Your task to perform on an android device: check storage Image 0: 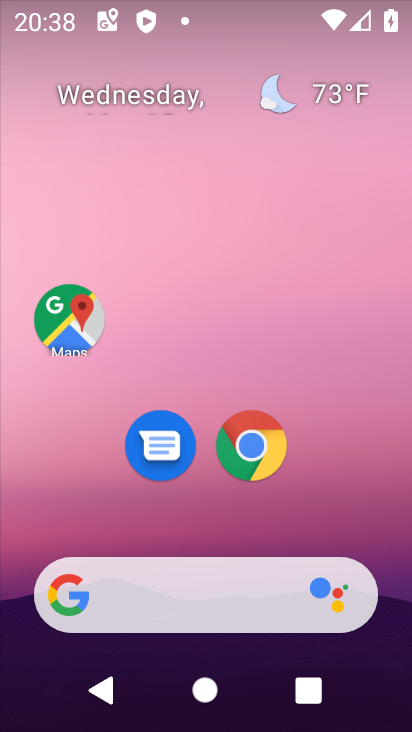
Step 0: drag from (357, 527) to (281, 159)
Your task to perform on an android device: check storage Image 1: 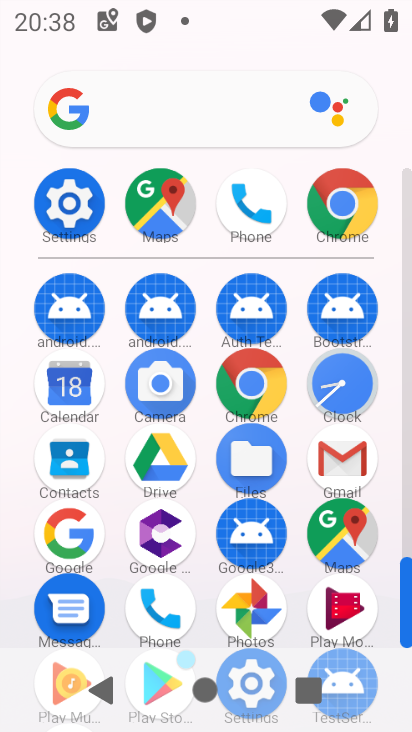
Step 1: drag from (298, 607) to (304, 301)
Your task to perform on an android device: check storage Image 2: 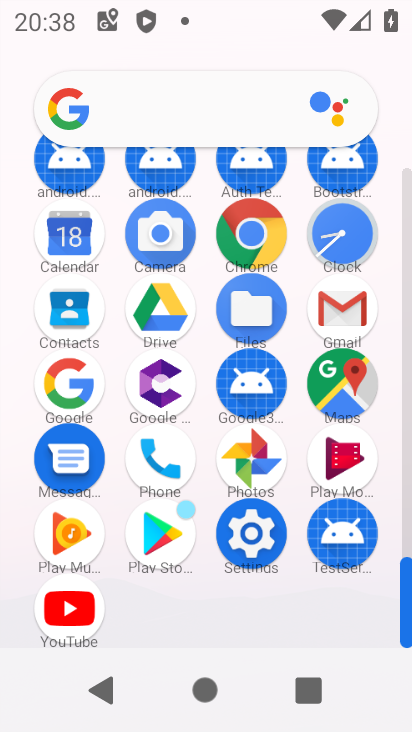
Step 2: click (254, 538)
Your task to perform on an android device: check storage Image 3: 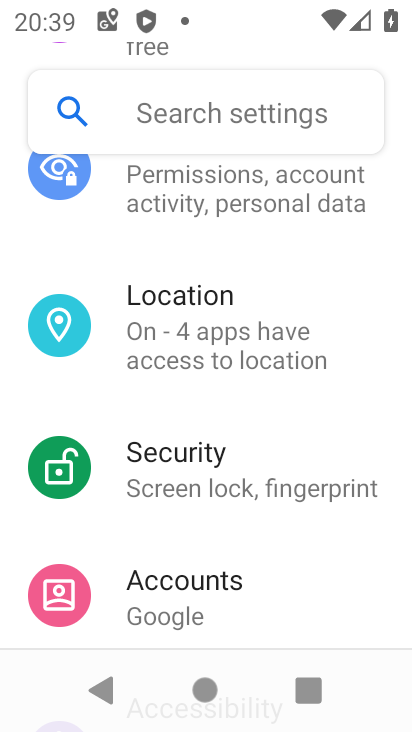
Step 3: drag from (173, 189) to (196, 507)
Your task to perform on an android device: check storage Image 4: 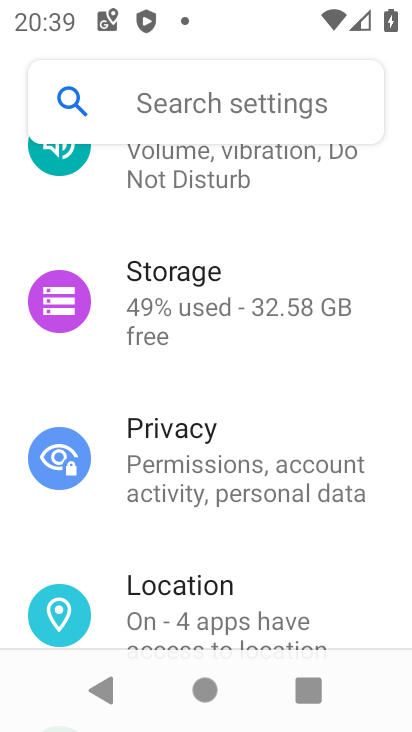
Step 4: click (186, 305)
Your task to perform on an android device: check storage Image 5: 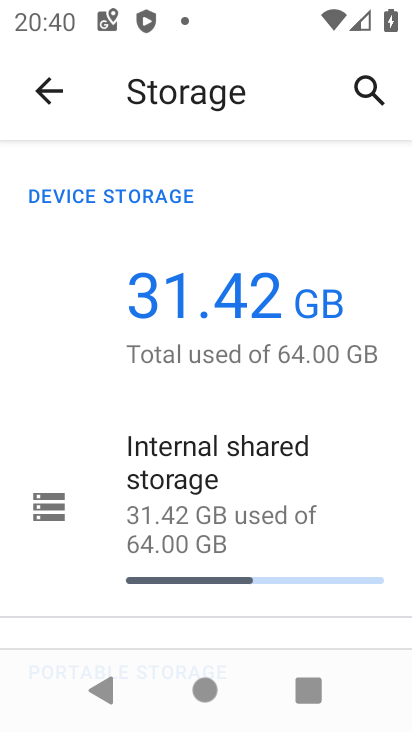
Step 5: task complete